Your task to perform on an android device: turn on bluetooth scan Image 0: 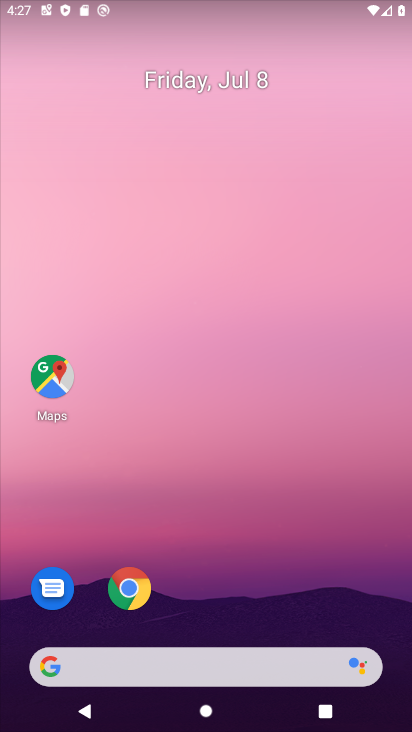
Step 0: drag from (234, 635) to (334, 0)
Your task to perform on an android device: turn on bluetooth scan Image 1: 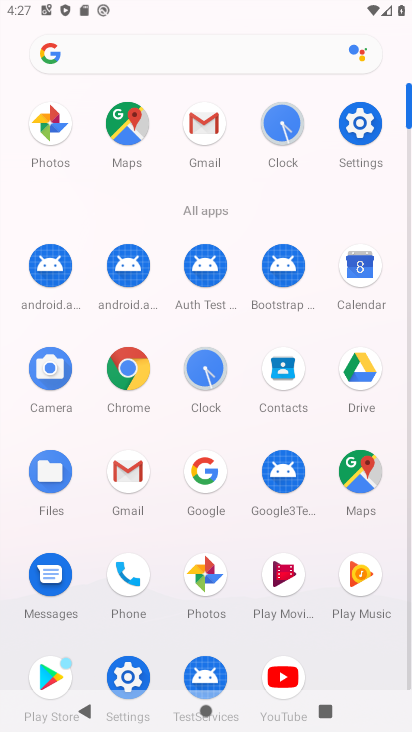
Step 1: click (126, 667)
Your task to perform on an android device: turn on bluetooth scan Image 2: 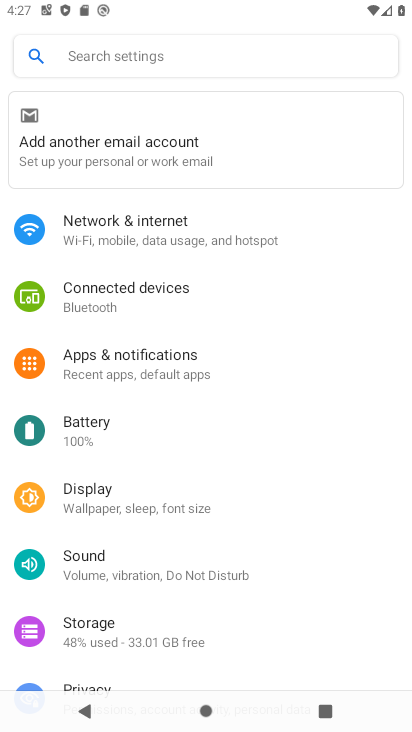
Step 2: drag from (129, 649) to (181, 382)
Your task to perform on an android device: turn on bluetooth scan Image 3: 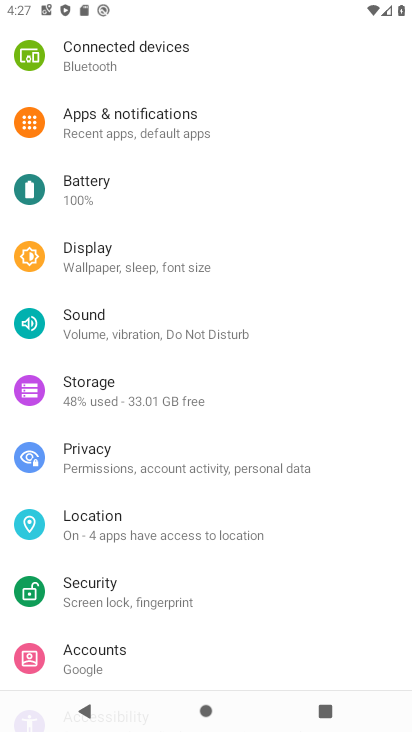
Step 3: drag from (133, 605) to (157, 447)
Your task to perform on an android device: turn on bluetooth scan Image 4: 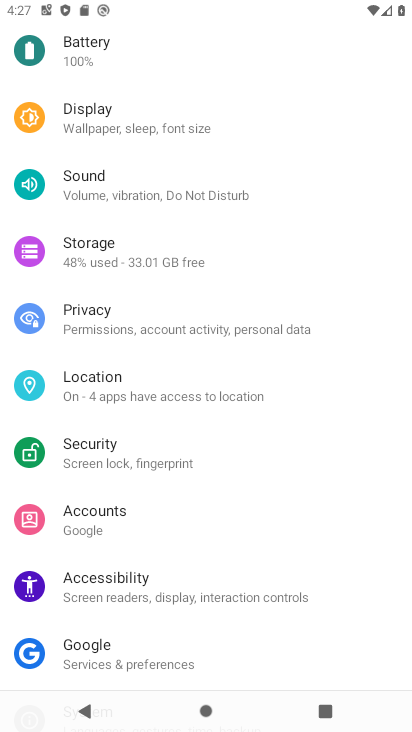
Step 4: click (148, 396)
Your task to perform on an android device: turn on bluetooth scan Image 5: 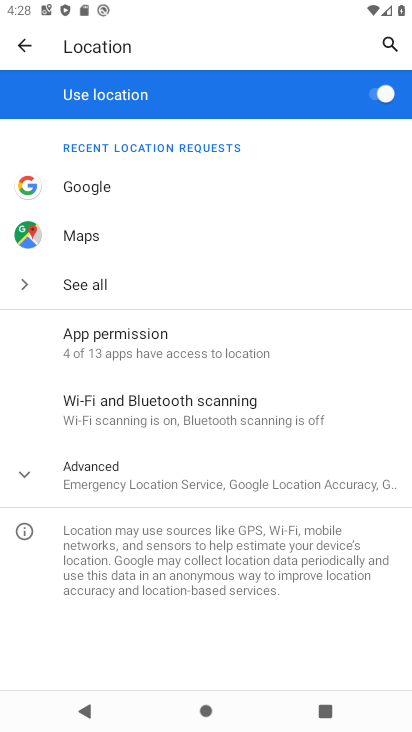
Step 5: task complete